Your task to perform on an android device: turn off picture-in-picture Image 0: 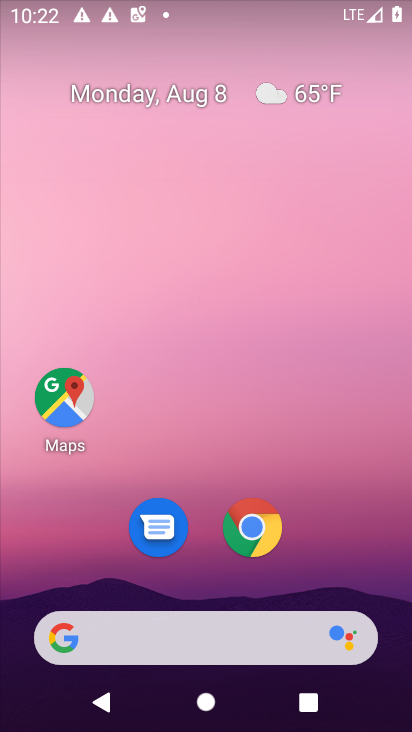
Step 0: click (254, 529)
Your task to perform on an android device: turn off picture-in-picture Image 1: 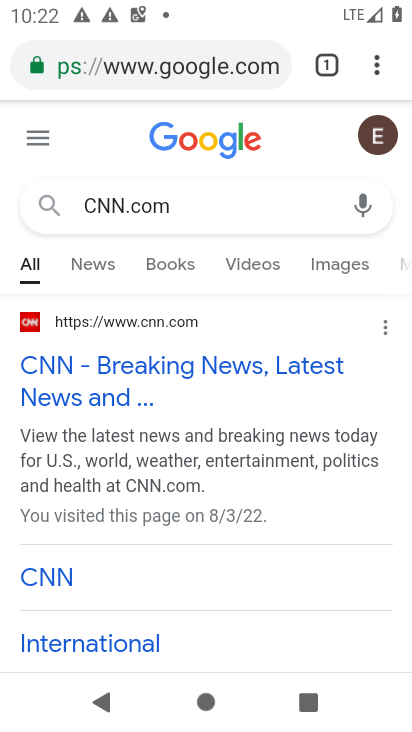
Step 1: press back button
Your task to perform on an android device: turn off picture-in-picture Image 2: 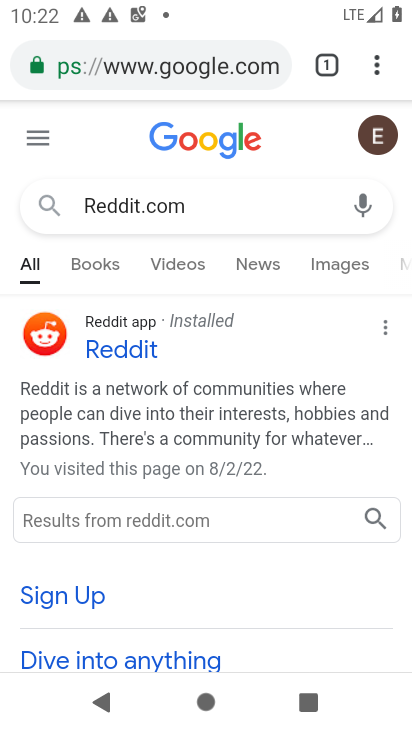
Step 2: press back button
Your task to perform on an android device: turn off picture-in-picture Image 3: 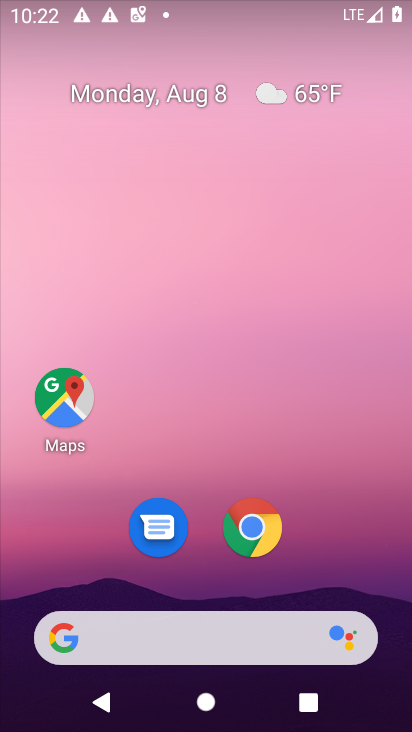
Step 3: drag from (247, 521) to (213, 521)
Your task to perform on an android device: turn off picture-in-picture Image 4: 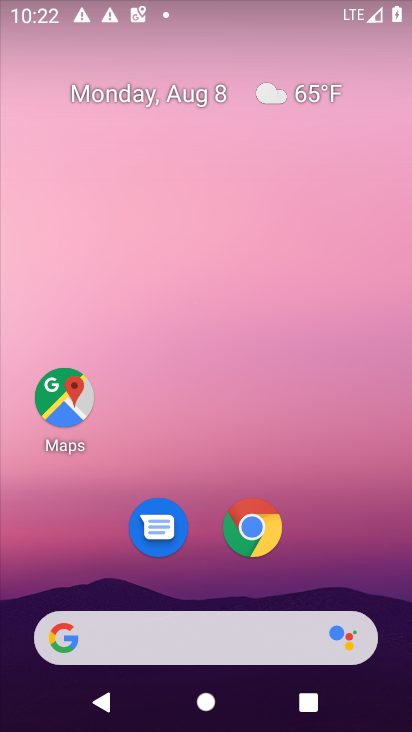
Step 4: click (255, 524)
Your task to perform on an android device: turn off picture-in-picture Image 5: 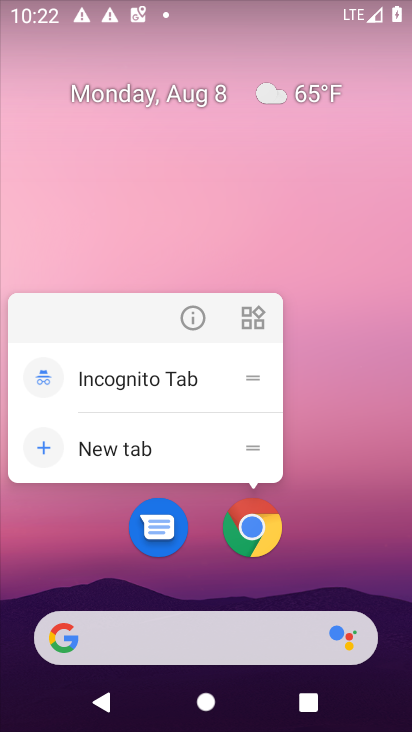
Step 5: click (189, 317)
Your task to perform on an android device: turn off picture-in-picture Image 6: 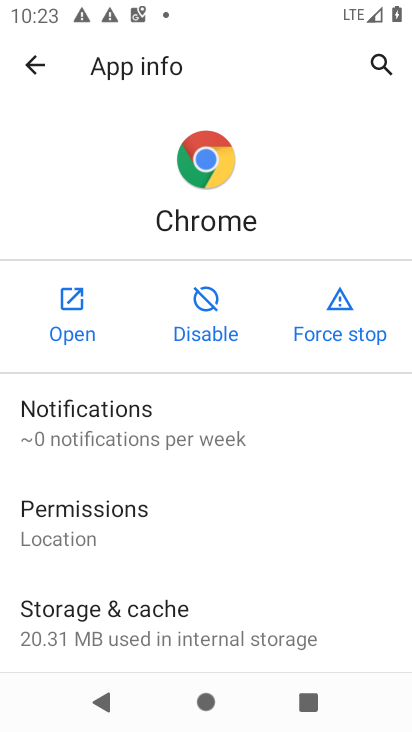
Step 6: drag from (254, 597) to (266, 216)
Your task to perform on an android device: turn off picture-in-picture Image 7: 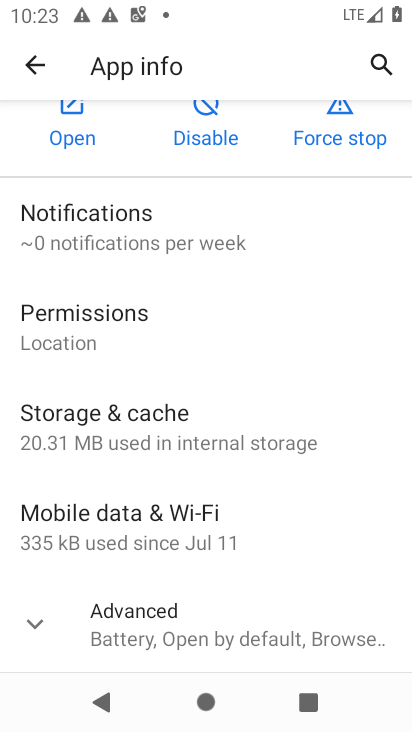
Step 7: click (41, 621)
Your task to perform on an android device: turn off picture-in-picture Image 8: 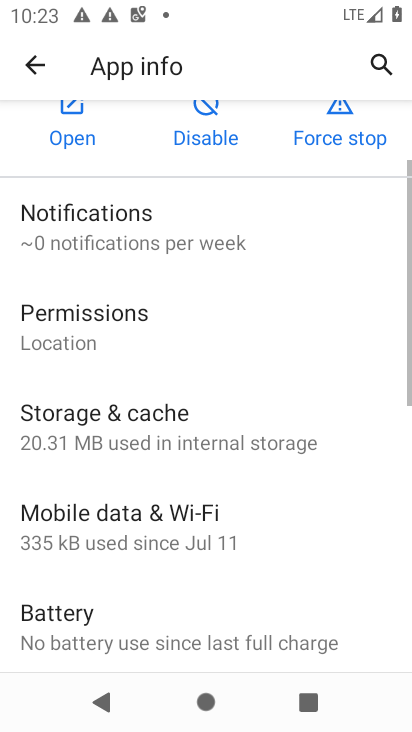
Step 8: drag from (310, 599) to (336, 218)
Your task to perform on an android device: turn off picture-in-picture Image 9: 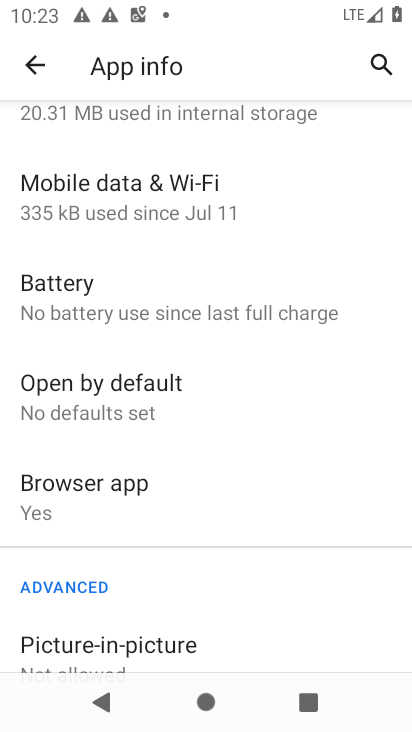
Step 9: click (133, 645)
Your task to perform on an android device: turn off picture-in-picture Image 10: 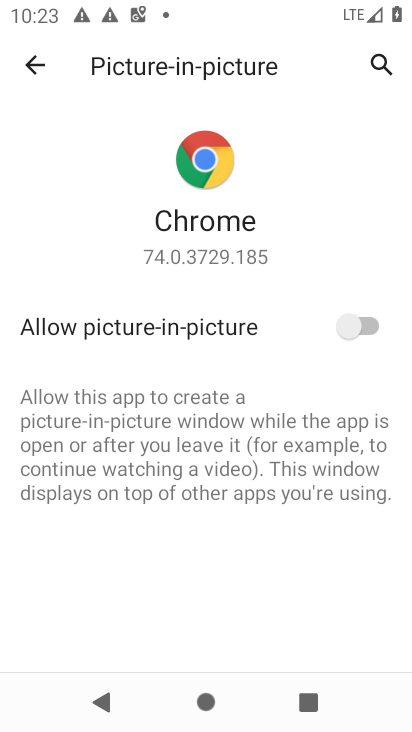
Step 10: task complete